Your task to perform on an android device: open a bookmark in the chrome app Image 0: 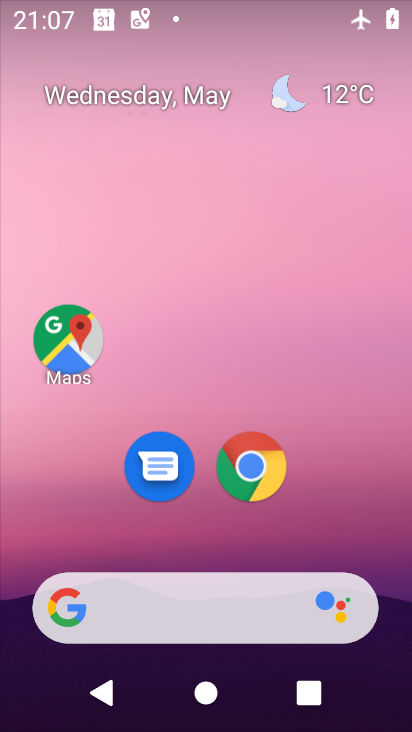
Step 0: click (258, 460)
Your task to perform on an android device: open a bookmark in the chrome app Image 1: 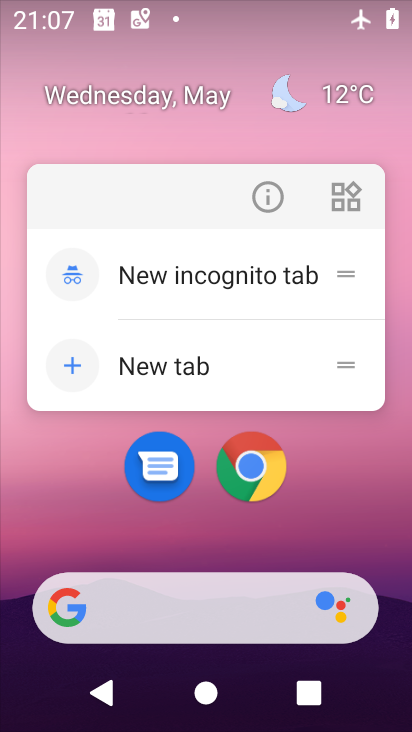
Step 1: click (258, 460)
Your task to perform on an android device: open a bookmark in the chrome app Image 2: 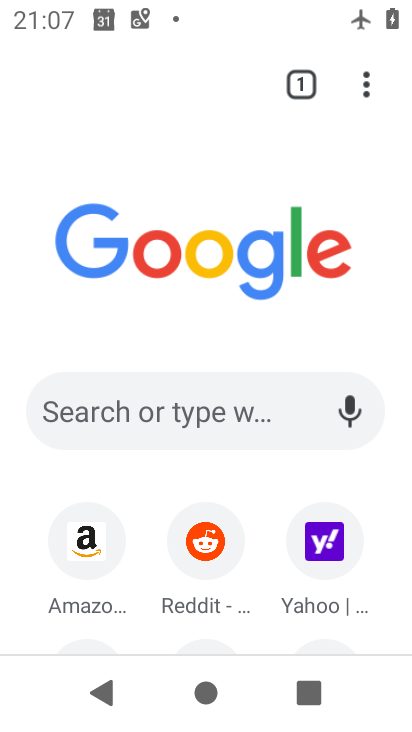
Step 2: click (366, 83)
Your task to perform on an android device: open a bookmark in the chrome app Image 3: 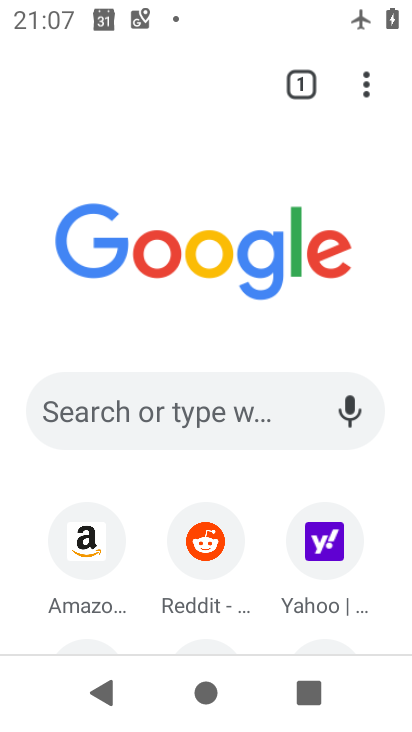
Step 3: click (366, 98)
Your task to perform on an android device: open a bookmark in the chrome app Image 4: 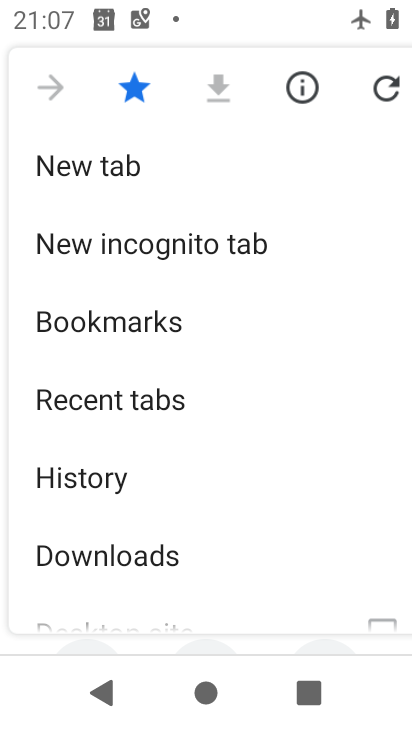
Step 4: click (137, 323)
Your task to perform on an android device: open a bookmark in the chrome app Image 5: 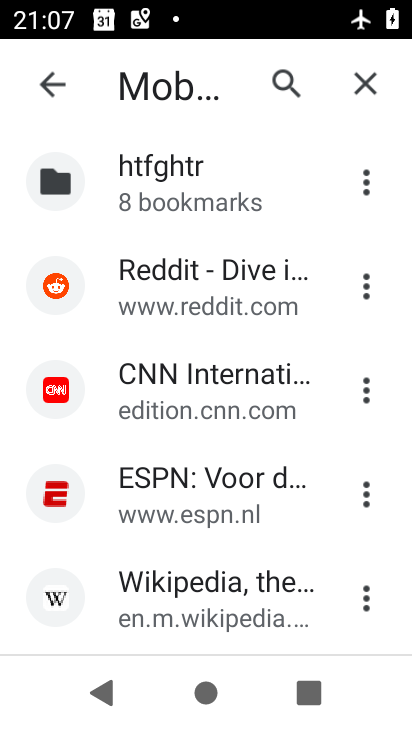
Step 5: click (171, 292)
Your task to perform on an android device: open a bookmark in the chrome app Image 6: 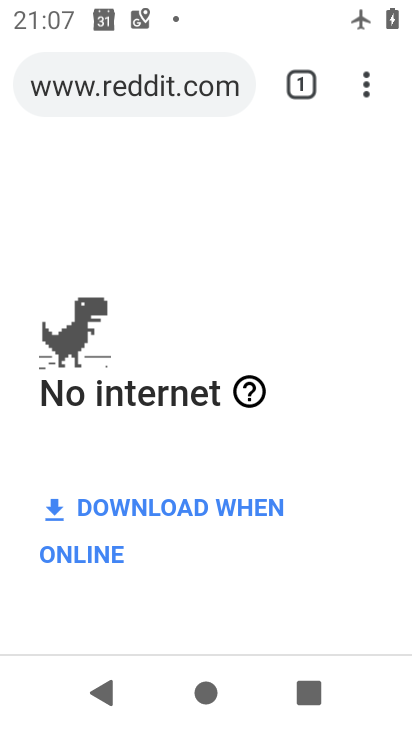
Step 6: task complete